Your task to perform on an android device: clear history in the chrome app Image 0: 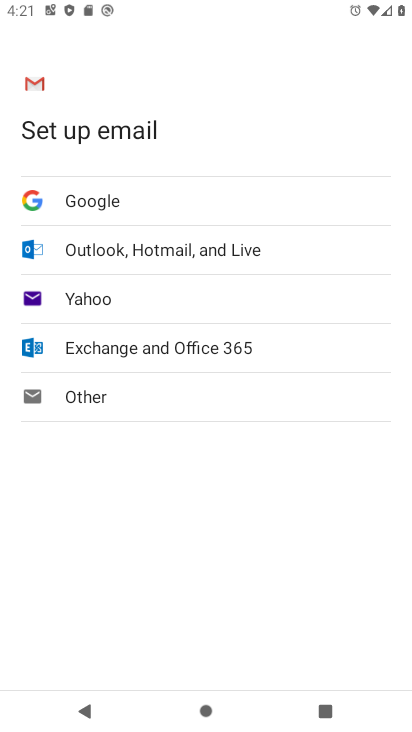
Step 0: press home button
Your task to perform on an android device: clear history in the chrome app Image 1: 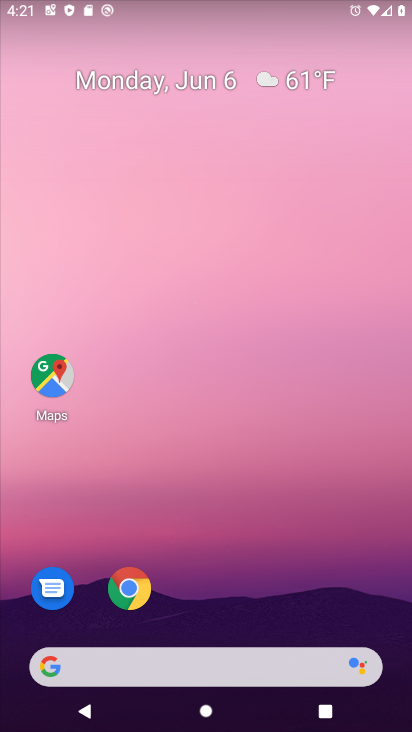
Step 1: drag from (234, 628) to (169, 174)
Your task to perform on an android device: clear history in the chrome app Image 2: 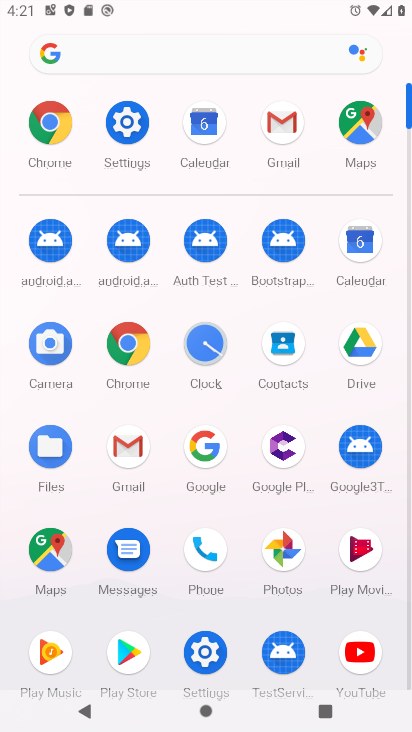
Step 2: click (55, 115)
Your task to perform on an android device: clear history in the chrome app Image 3: 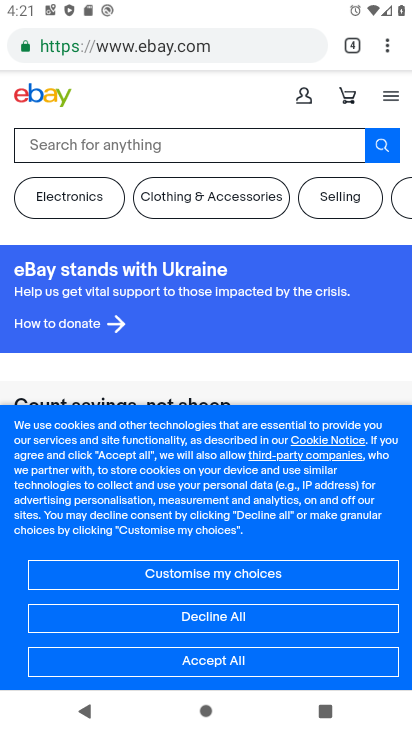
Step 3: click (389, 41)
Your task to perform on an android device: clear history in the chrome app Image 4: 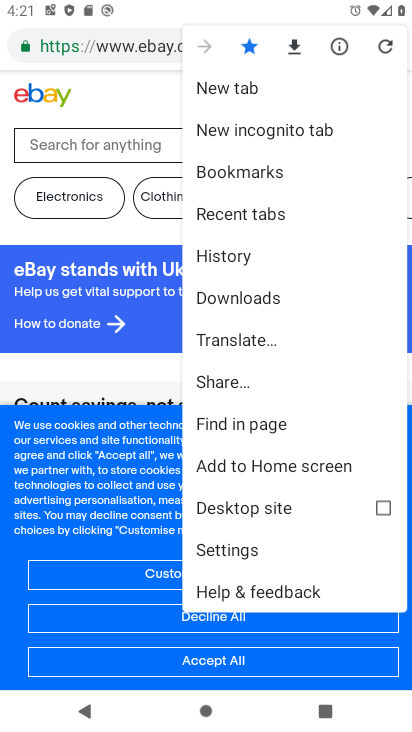
Step 4: click (274, 270)
Your task to perform on an android device: clear history in the chrome app Image 5: 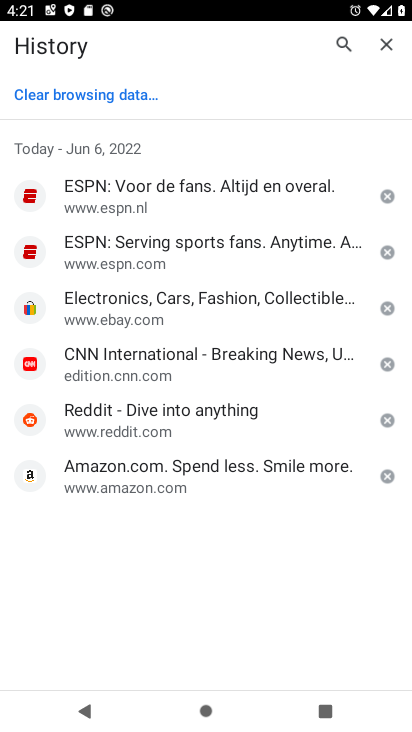
Step 5: click (104, 104)
Your task to perform on an android device: clear history in the chrome app Image 6: 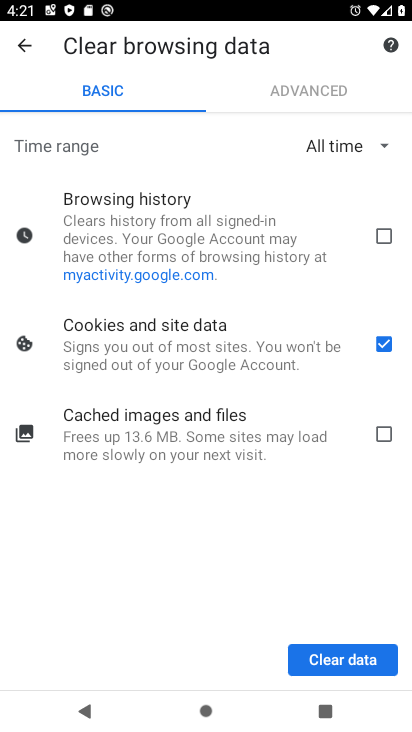
Step 6: click (389, 345)
Your task to perform on an android device: clear history in the chrome app Image 7: 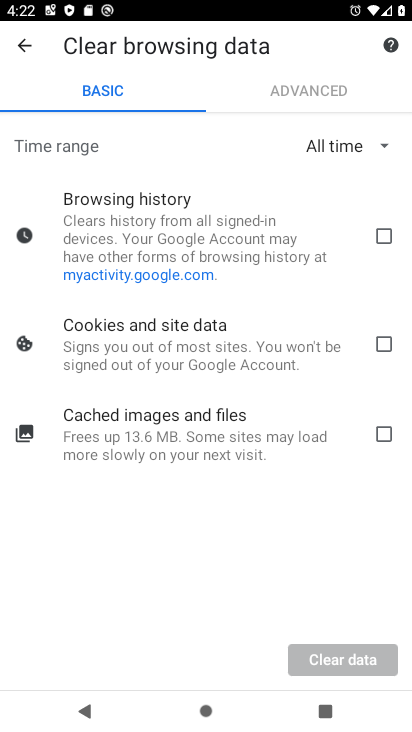
Step 7: click (379, 249)
Your task to perform on an android device: clear history in the chrome app Image 8: 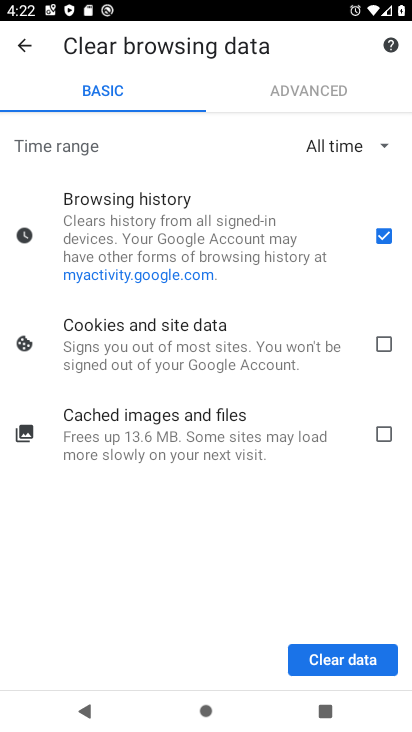
Step 8: click (394, 671)
Your task to perform on an android device: clear history in the chrome app Image 9: 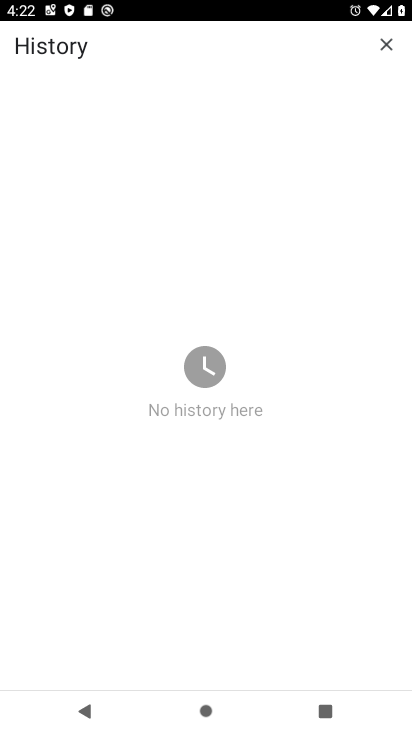
Step 9: task complete